Your task to perform on an android device: Add "jbl charge 4" to the cart on amazon.com Image 0: 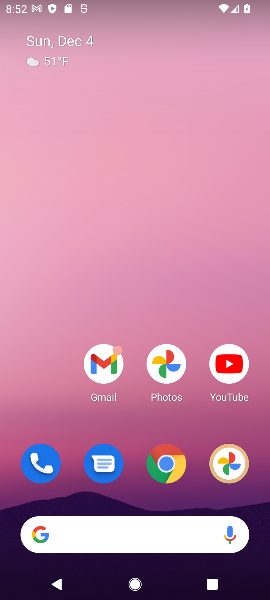
Step 0: click (125, 542)
Your task to perform on an android device: Add "jbl charge 4" to the cart on amazon.com Image 1: 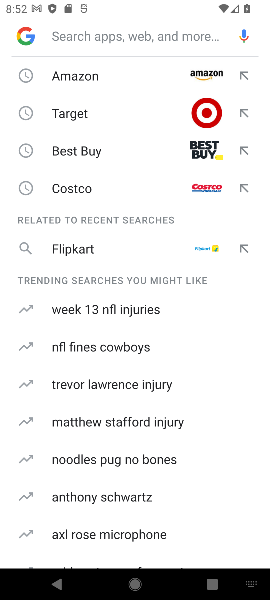
Step 1: type "amazon "
Your task to perform on an android device: Add "jbl charge 4" to the cart on amazon.com Image 2: 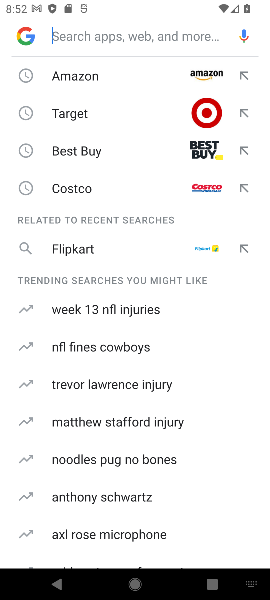
Step 2: click (100, 85)
Your task to perform on an android device: Add "jbl charge 4" to the cart on amazon.com Image 3: 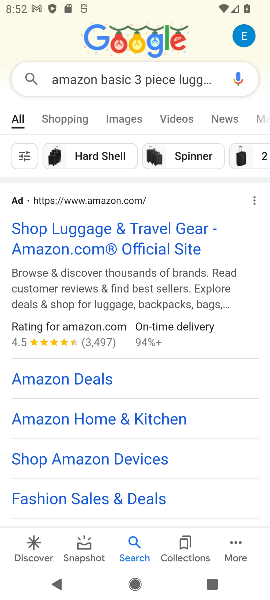
Step 3: click (96, 255)
Your task to perform on an android device: Add "jbl charge 4" to the cart on amazon.com Image 4: 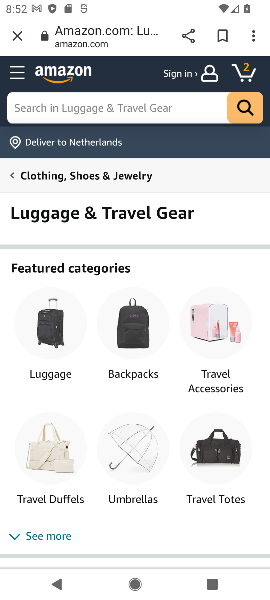
Step 4: task complete